Your task to perform on an android device: Do I have any events this weekend? Image 0: 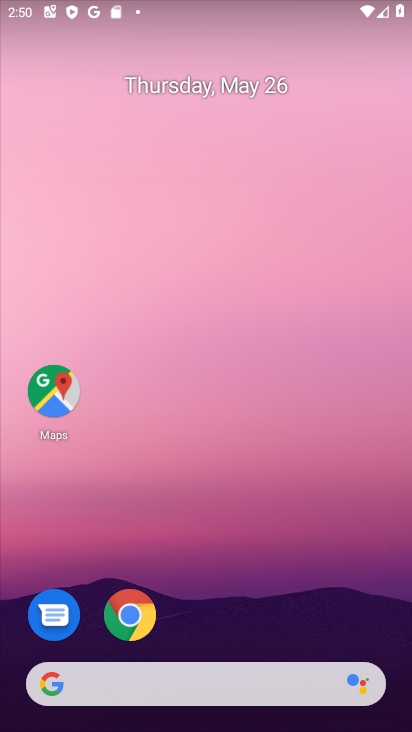
Step 0: drag from (223, 610) to (204, 4)
Your task to perform on an android device: Do I have any events this weekend? Image 1: 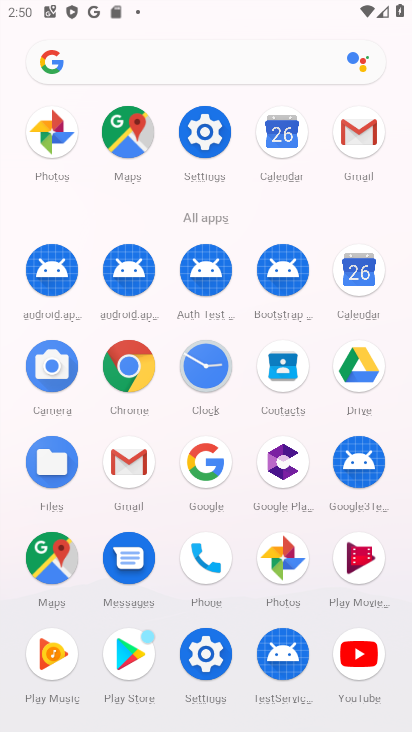
Step 1: click (359, 314)
Your task to perform on an android device: Do I have any events this weekend? Image 2: 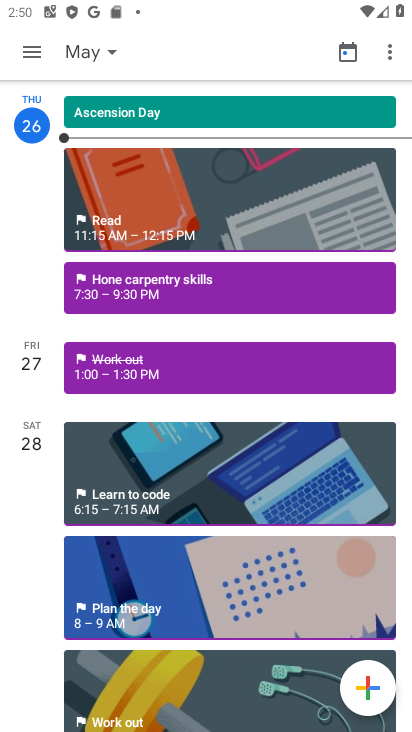
Step 2: click (72, 55)
Your task to perform on an android device: Do I have any events this weekend? Image 3: 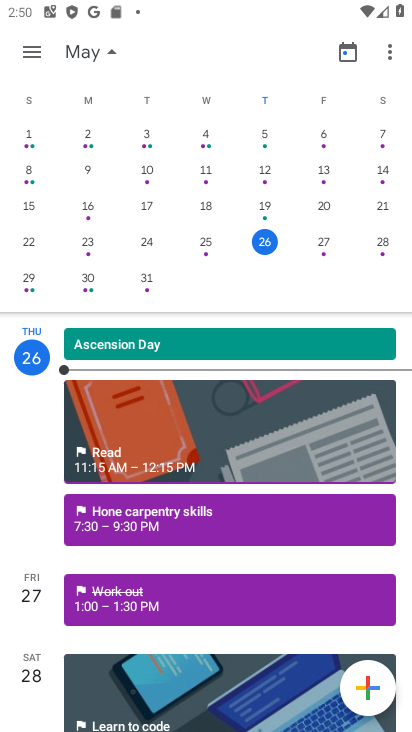
Step 3: click (32, 57)
Your task to perform on an android device: Do I have any events this weekend? Image 4: 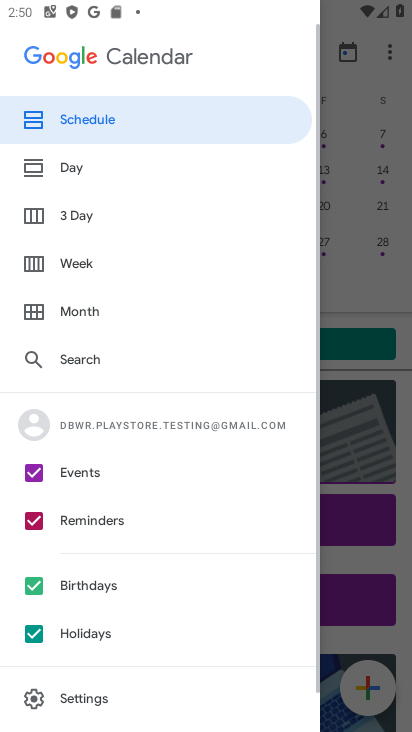
Step 4: click (85, 263)
Your task to perform on an android device: Do I have any events this weekend? Image 5: 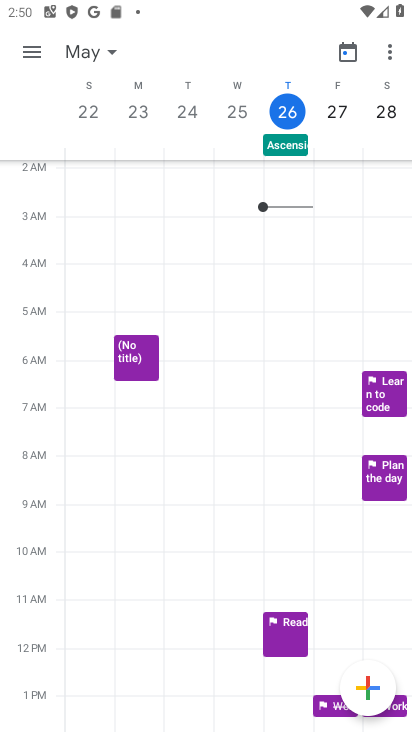
Step 5: task complete